Your task to perform on an android device: Is it going to rain today? Image 0: 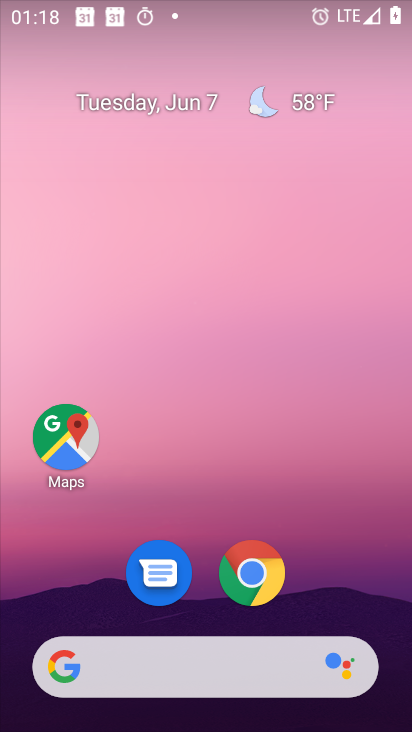
Step 0: drag from (329, 570) to (378, 49)
Your task to perform on an android device: Is it going to rain today? Image 1: 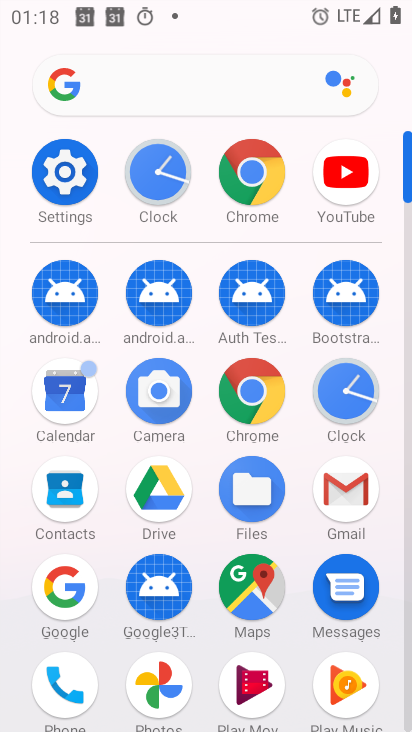
Step 1: drag from (290, 384) to (322, 100)
Your task to perform on an android device: Is it going to rain today? Image 2: 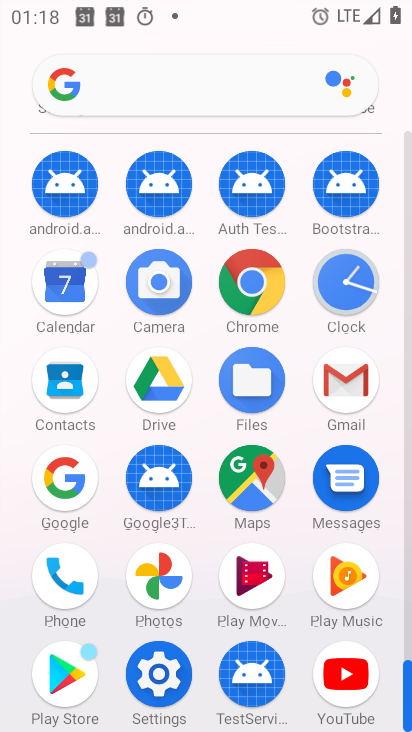
Step 2: click (258, 275)
Your task to perform on an android device: Is it going to rain today? Image 3: 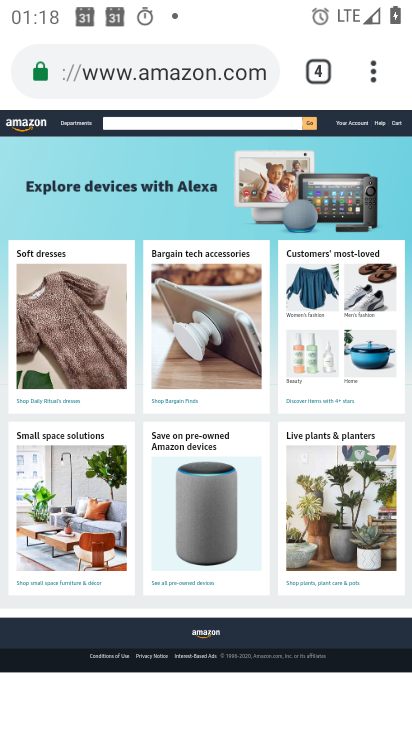
Step 3: click (222, 77)
Your task to perform on an android device: Is it going to rain today? Image 4: 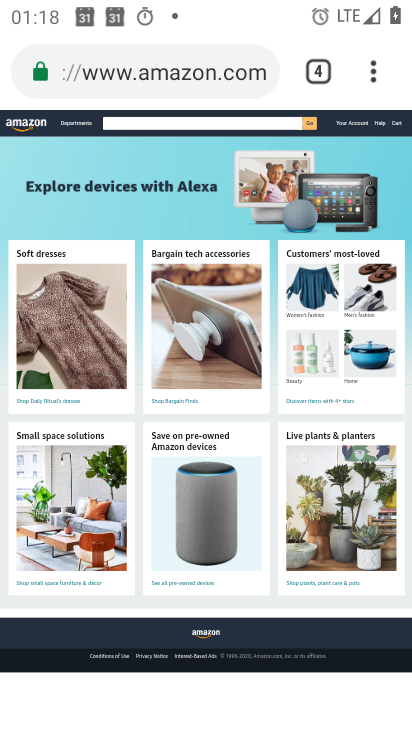
Step 4: click (222, 77)
Your task to perform on an android device: Is it going to rain today? Image 5: 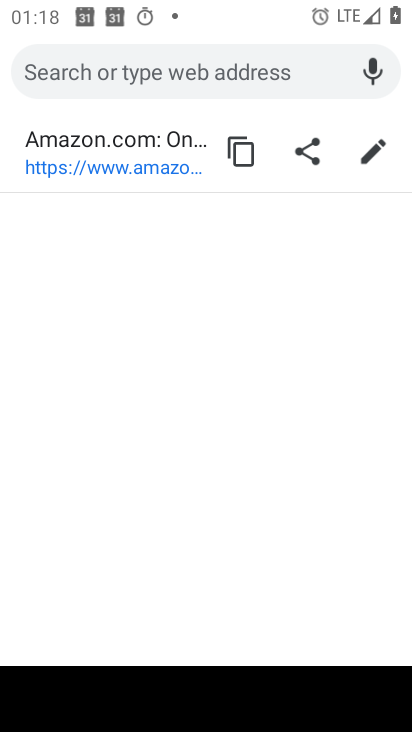
Step 5: type "Is it going to rain today?"
Your task to perform on an android device: Is it going to rain today? Image 6: 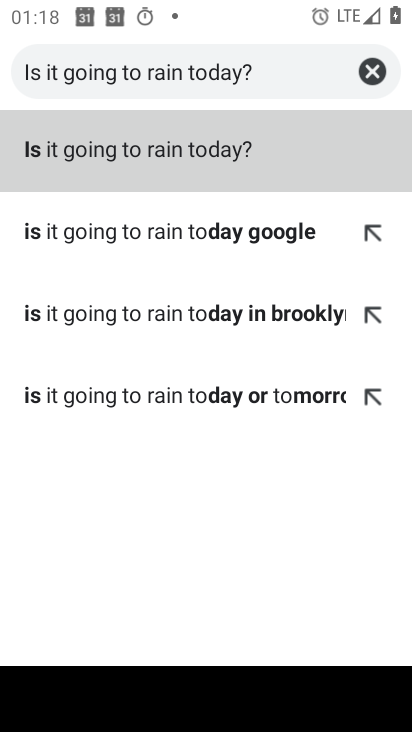
Step 6: click (65, 147)
Your task to perform on an android device: Is it going to rain today? Image 7: 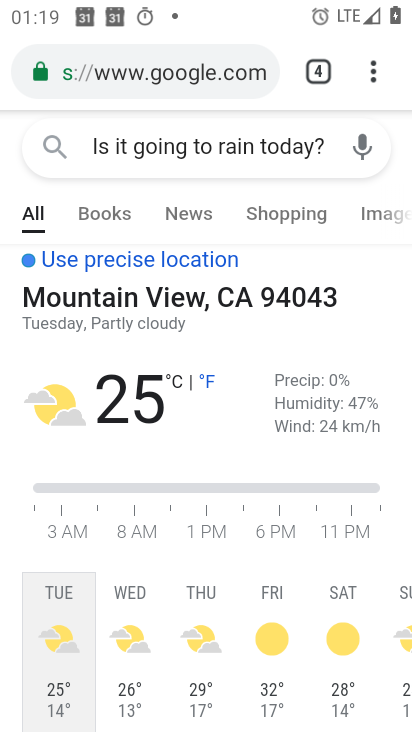
Step 7: task complete